Your task to perform on an android device: Go to calendar. Show me events next week Image 0: 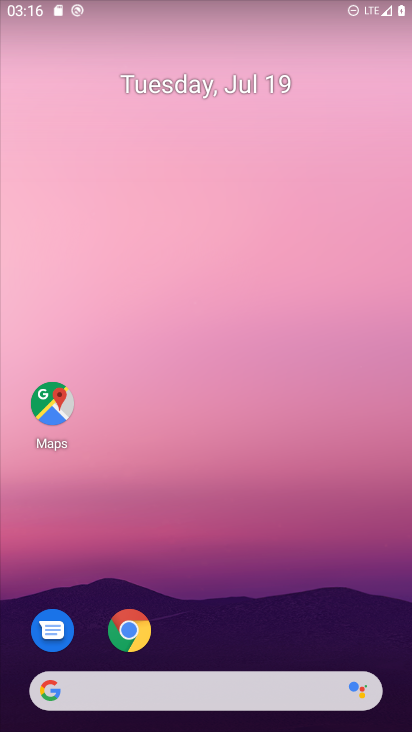
Step 0: drag from (376, 643) to (313, 81)
Your task to perform on an android device: Go to calendar. Show me events next week Image 1: 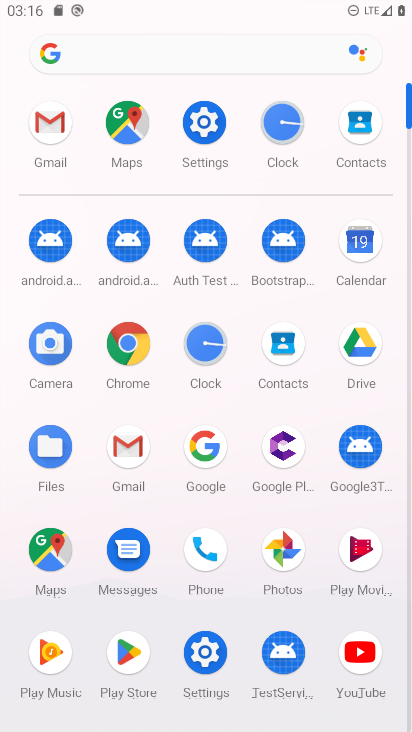
Step 1: click (362, 242)
Your task to perform on an android device: Go to calendar. Show me events next week Image 2: 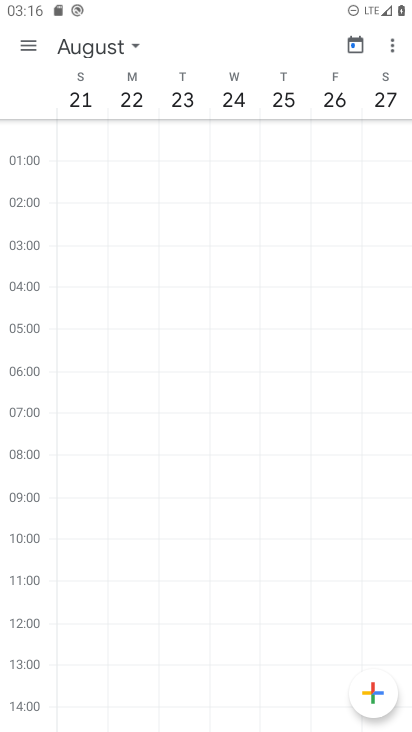
Step 2: click (31, 48)
Your task to perform on an android device: Go to calendar. Show me events next week Image 3: 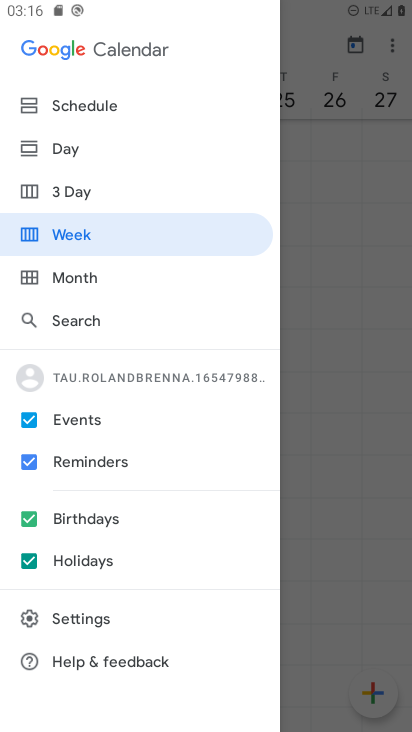
Step 3: click (84, 232)
Your task to perform on an android device: Go to calendar. Show me events next week Image 4: 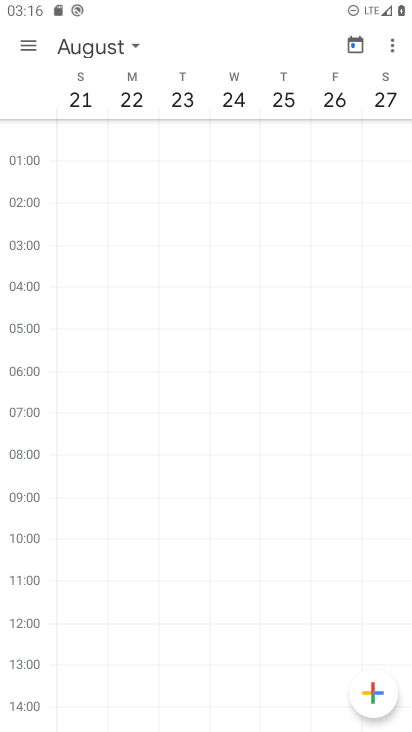
Step 4: click (137, 43)
Your task to perform on an android device: Go to calendar. Show me events next week Image 5: 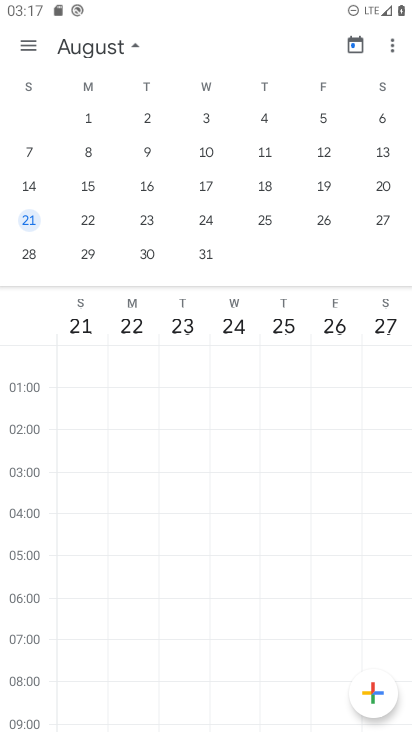
Step 5: drag from (25, 213) to (362, 200)
Your task to perform on an android device: Go to calendar. Show me events next week Image 6: 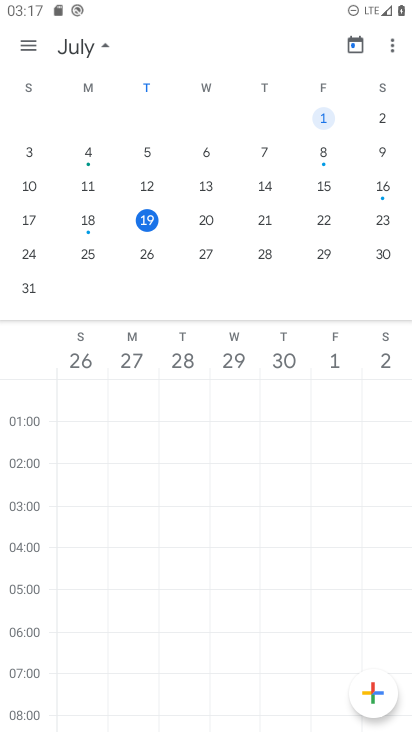
Step 6: click (31, 256)
Your task to perform on an android device: Go to calendar. Show me events next week Image 7: 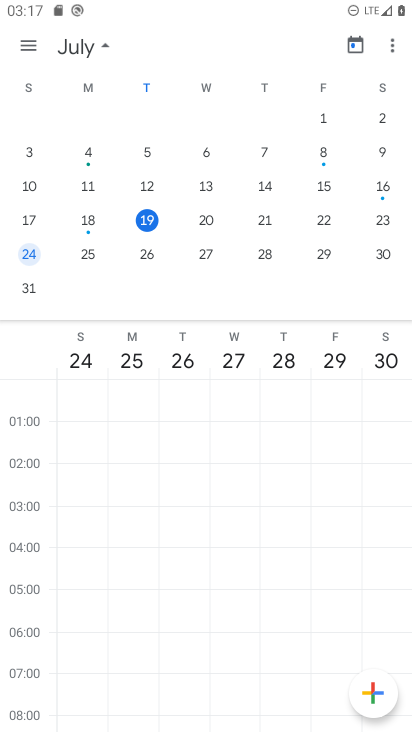
Step 7: task complete